Your task to perform on an android device: check storage Image 0: 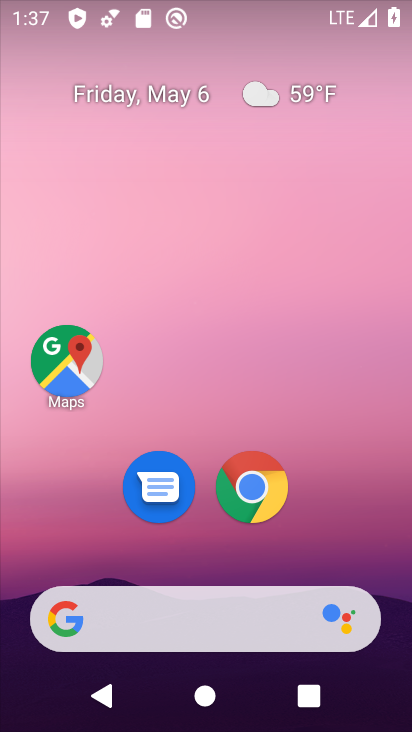
Step 0: drag from (238, 614) to (317, 190)
Your task to perform on an android device: check storage Image 1: 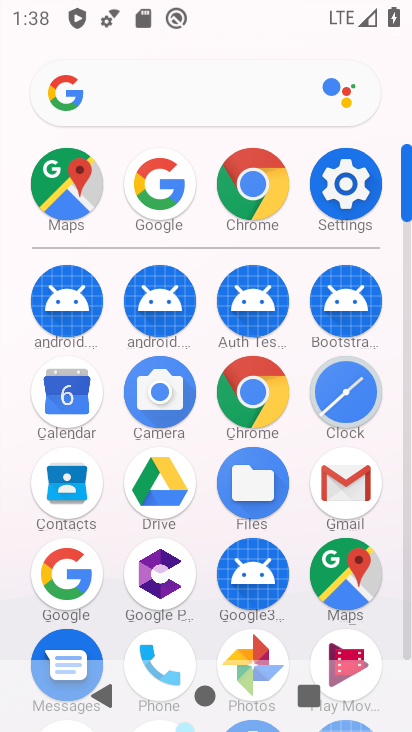
Step 1: click (354, 200)
Your task to perform on an android device: check storage Image 2: 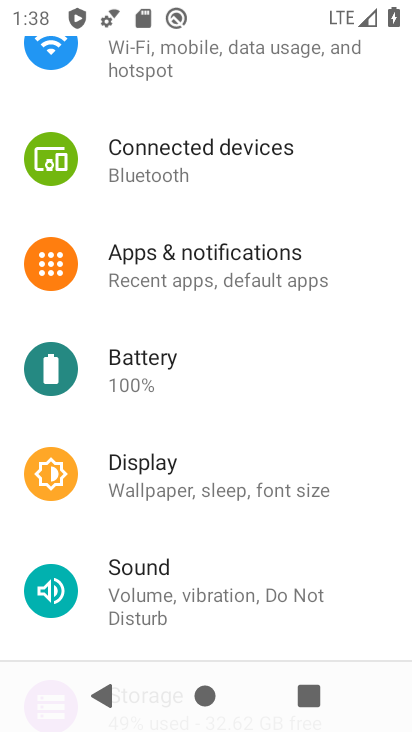
Step 2: drag from (180, 492) to (213, 222)
Your task to perform on an android device: check storage Image 3: 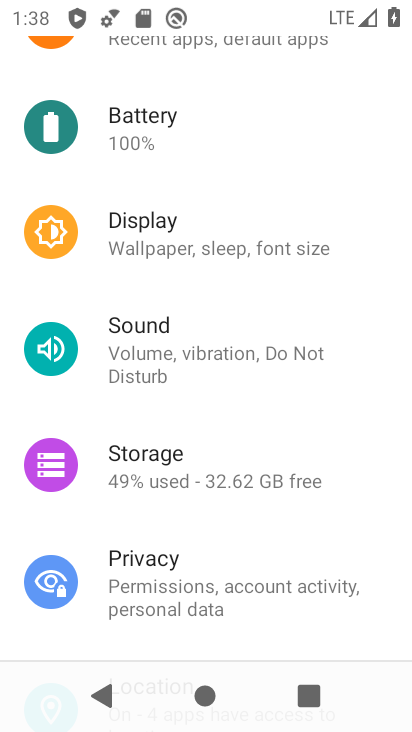
Step 3: click (182, 444)
Your task to perform on an android device: check storage Image 4: 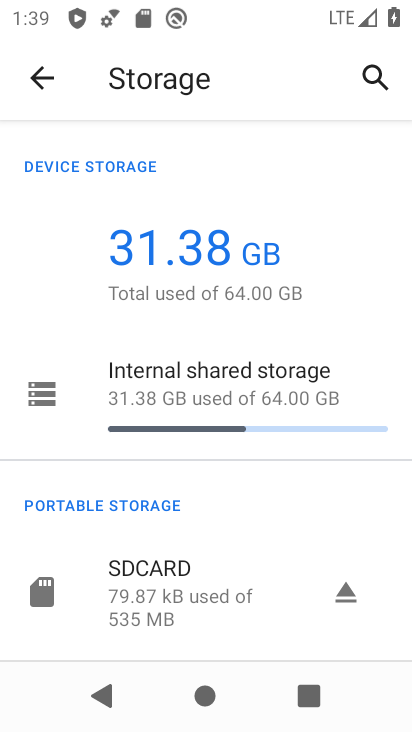
Step 4: click (185, 366)
Your task to perform on an android device: check storage Image 5: 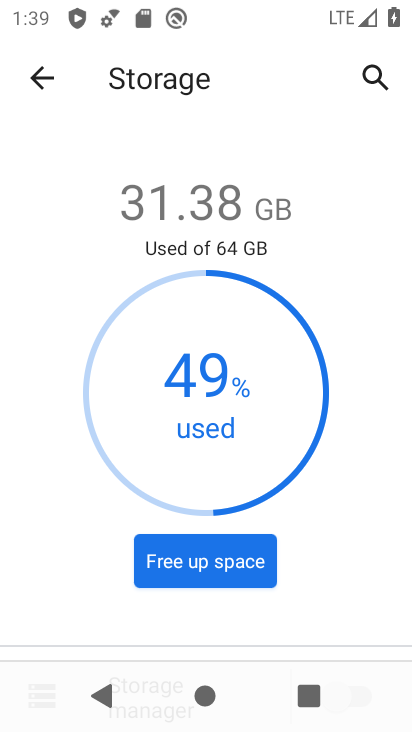
Step 5: task complete